Your task to perform on an android device: Go to Reddit.com Image 0: 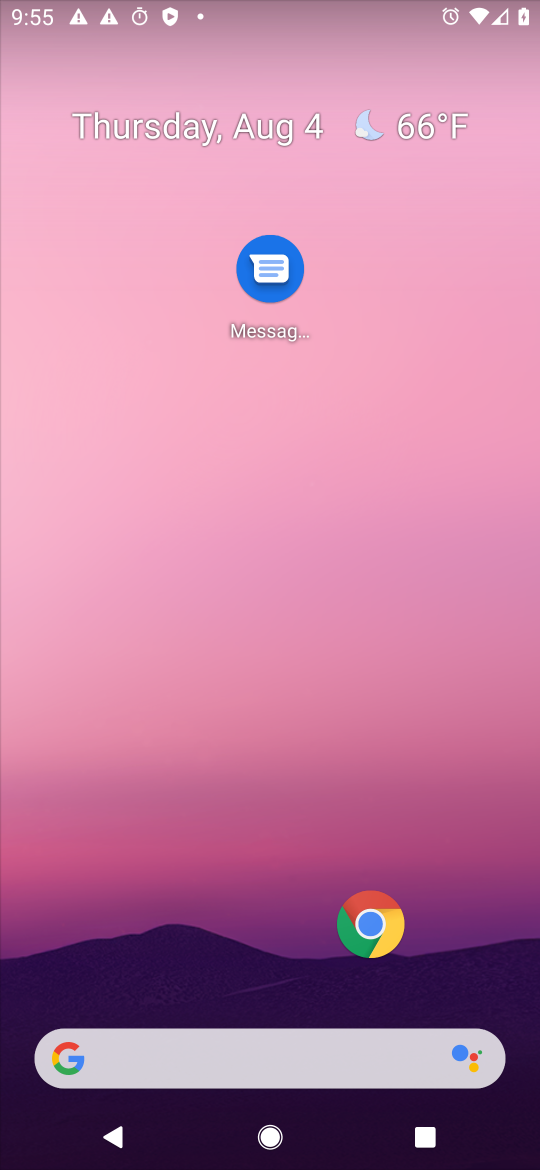
Step 0: drag from (289, 970) to (436, 97)
Your task to perform on an android device: Go to Reddit.com Image 1: 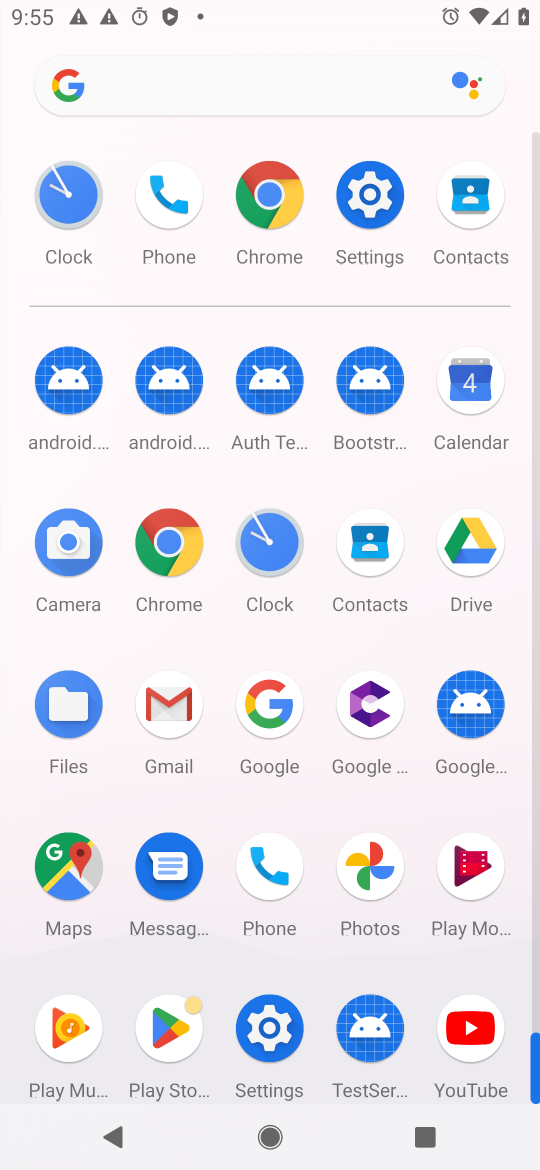
Step 1: click (166, 61)
Your task to perform on an android device: Go to Reddit.com Image 2: 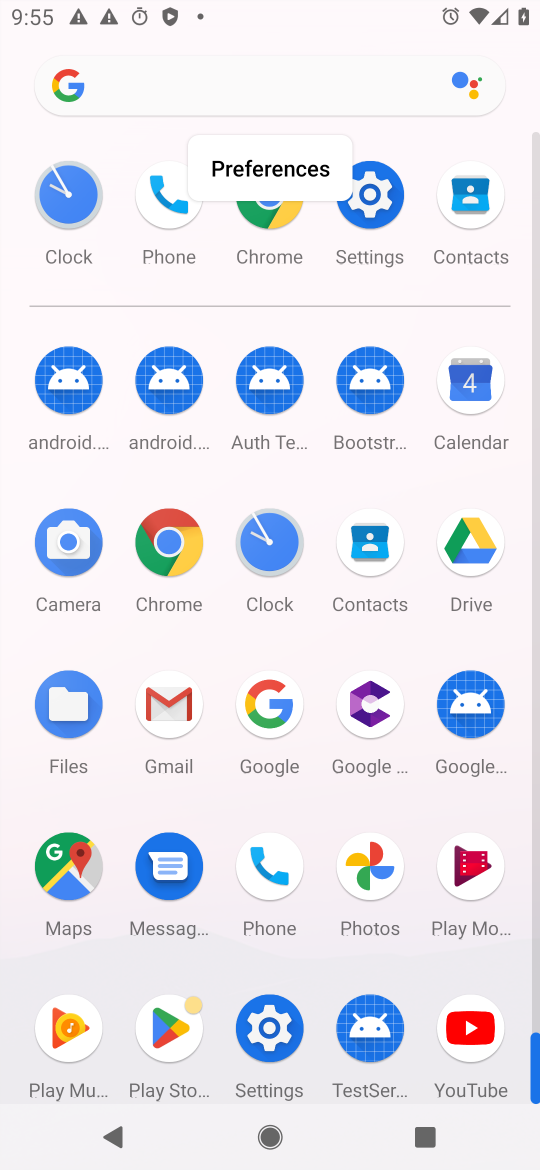
Step 2: click (195, 82)
Your task to perform on an android device: Go to Reddit.com Image 3: 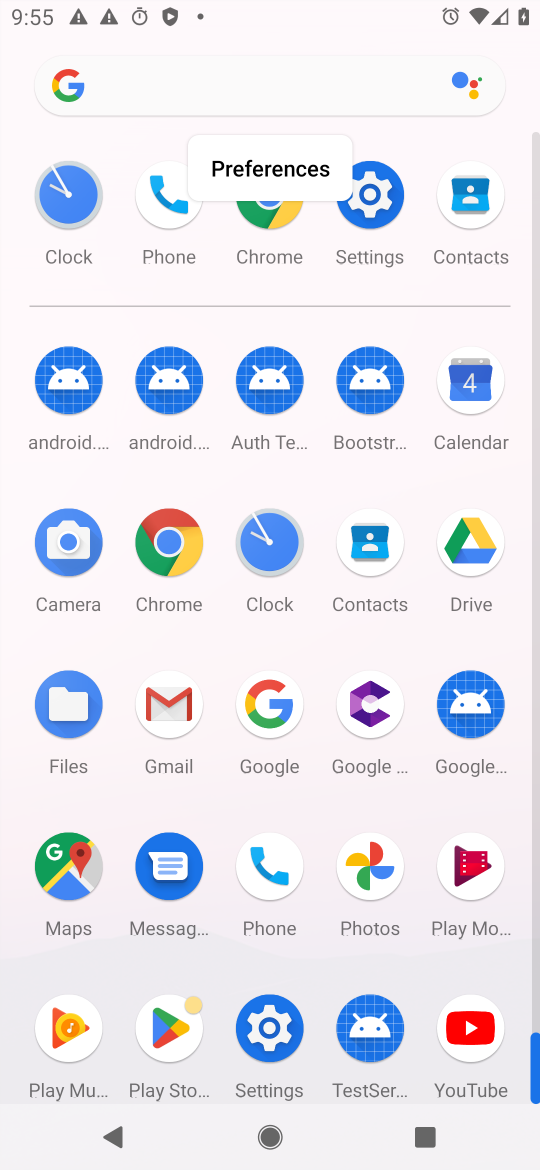
Step 3: type " Reddit.com"
Your task to perform on an android device: Go to Reddit.com Image 4: 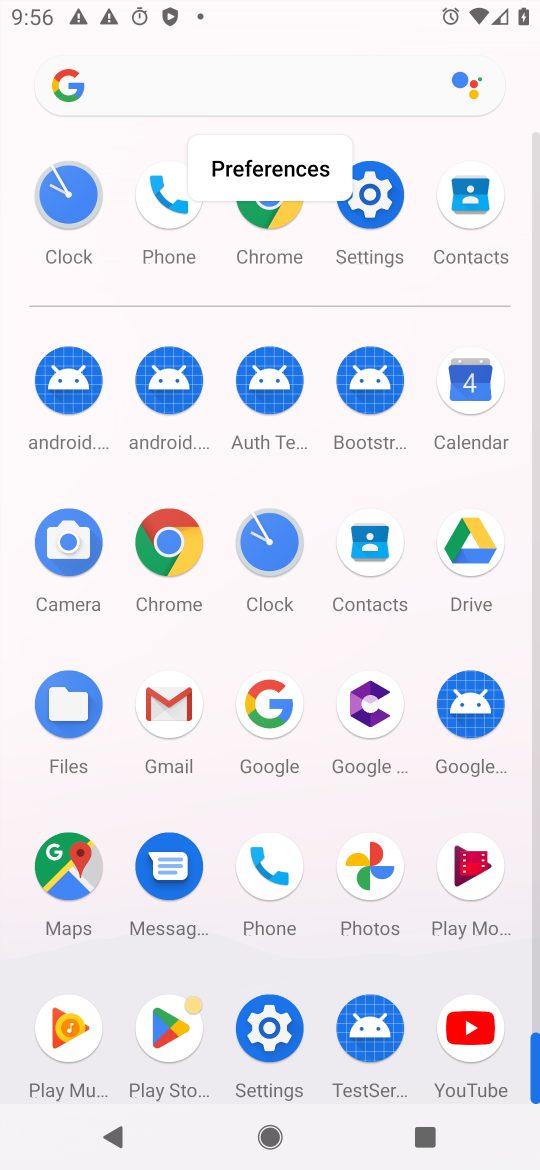
Step 4: click (160, 94)
Your task to perform on an android device: Go to Reddit.com Image 5: 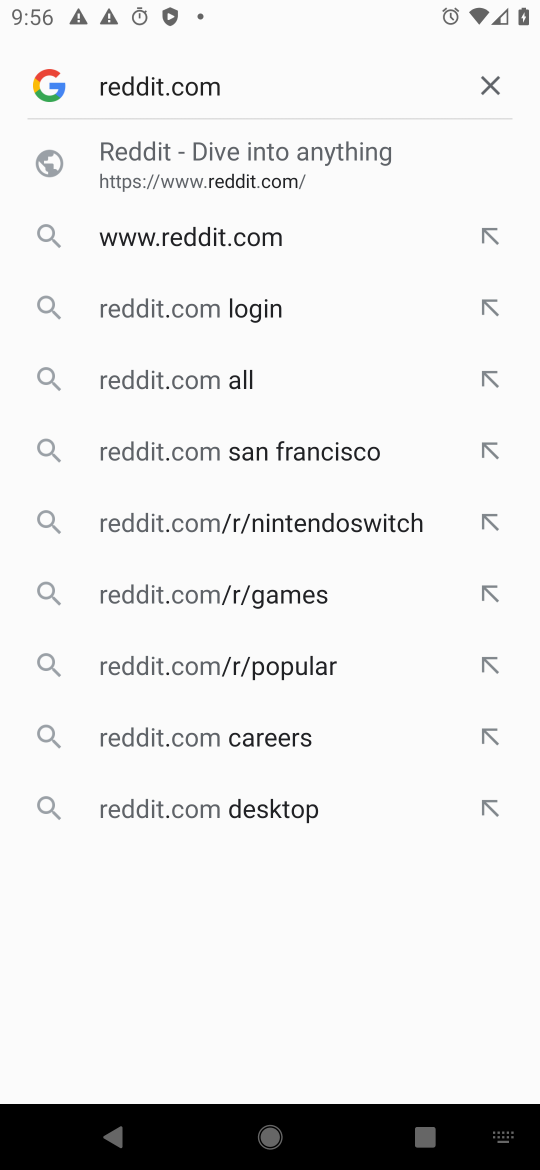
Step 5: click (228, 148)
Your task to perform on an android device: Go to Reddit.com Image 6: 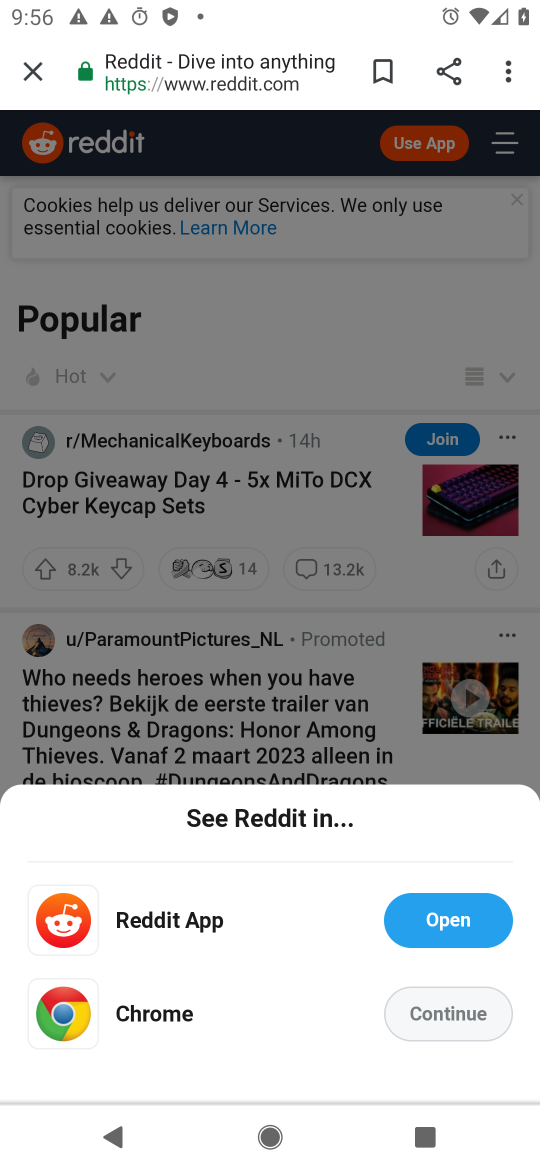
Step 6: task complete